Your task to perform on an android device: check the backup settings in the google photos Image 0: 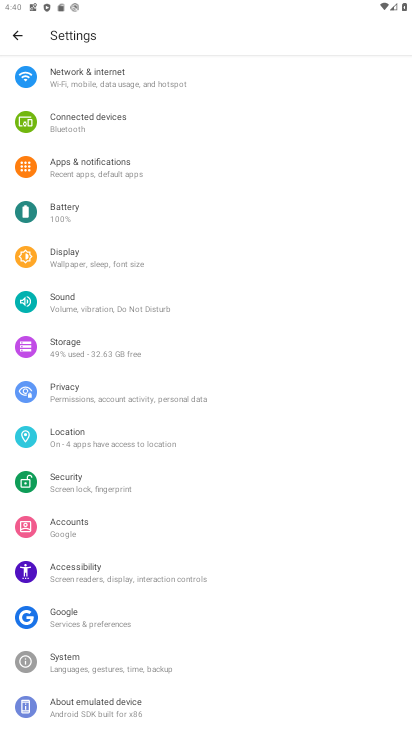
Step 0: press home button
Your task to perform on an android device: check the backup settings in the google photos Image 1: 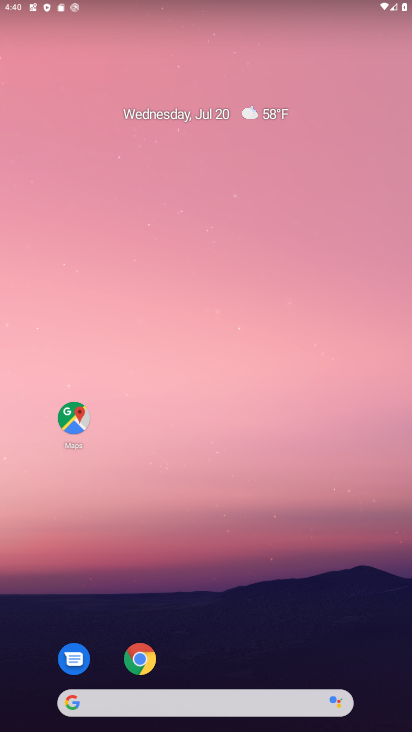
Step 1: drag from (231, 698) to (289, 180)
Your task to perform on an android device: check the backup settings in the google photos Image 2: 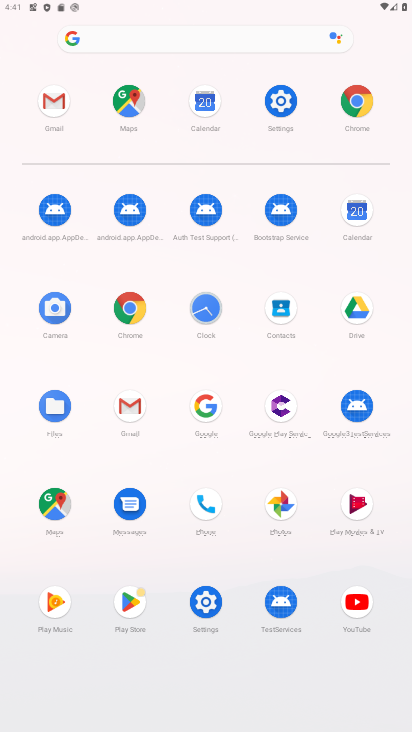
Step 2: click (271, 500)
Your task to perform on an android device: check the backup settings in the google photos Image 3: 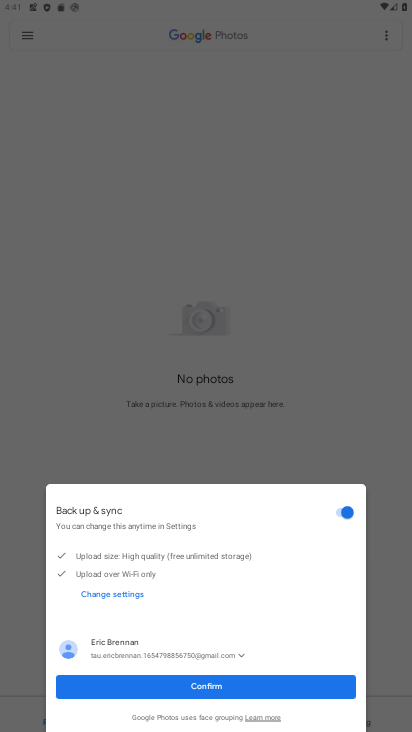
Step 3: click (225, 687)
Your task to perform on an android device: check the backup settings in the google photos Image 4: 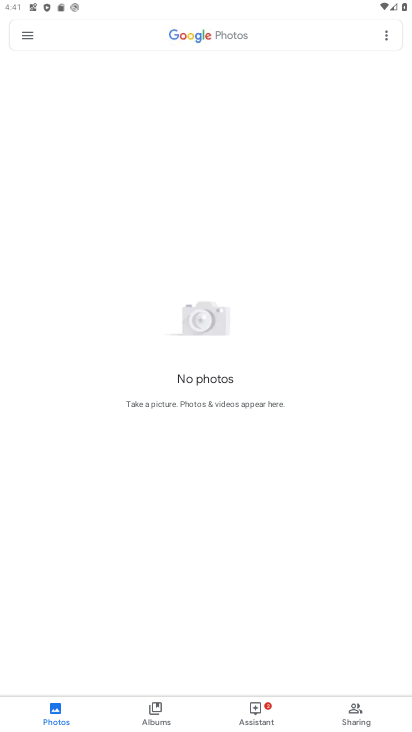
Step 4: click (27, 30)
Your task to perform on an android device: check the backup settings in the google photos Image 5: 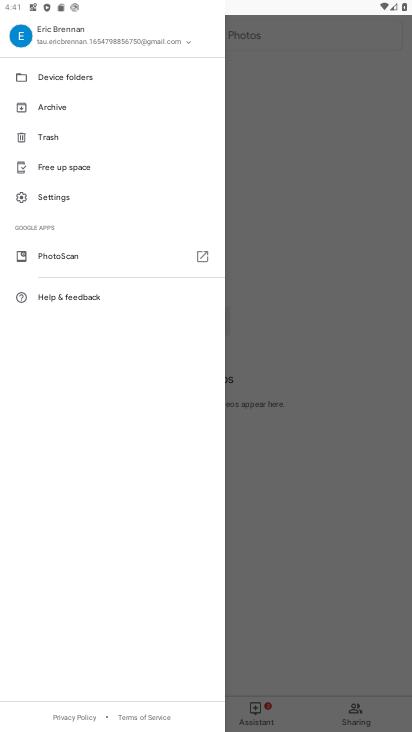
Step 5: click (76, 181)
Your task to perform on an android device: check the backup settings in the google photos Image 6: 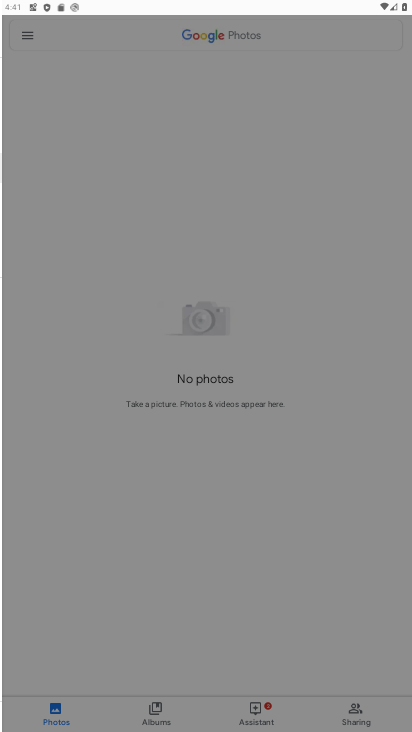
Step 6: click (65, 197)
Your task to perform on an android device: check the backup settings in the google photos Image 7: 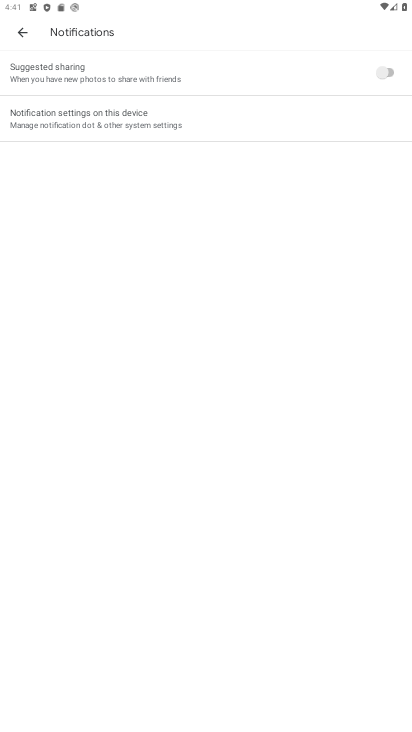
Step 7: press back button
Your task to perform on an android device: check the backup settings in the google photos Image 8: 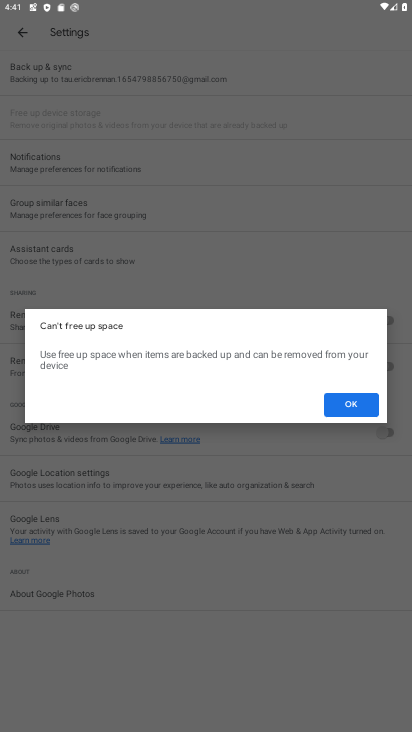
Step 8: click (331, 395)
Your task to perform on an android device: check the backup settings in the google photos Image 9: 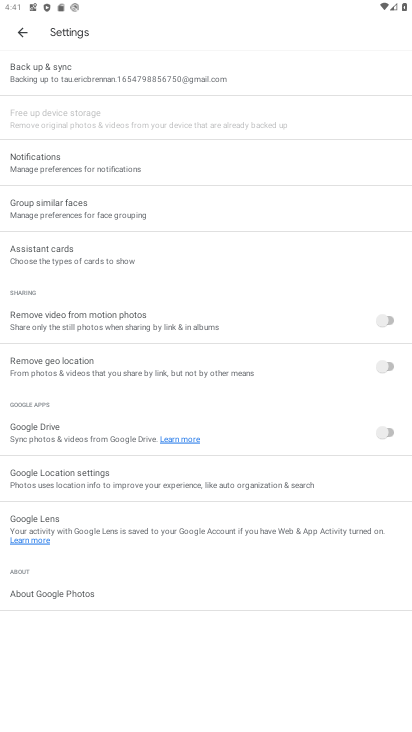
Step 9: task complete